Your task to perform on an android device: Open location settings Image 0: 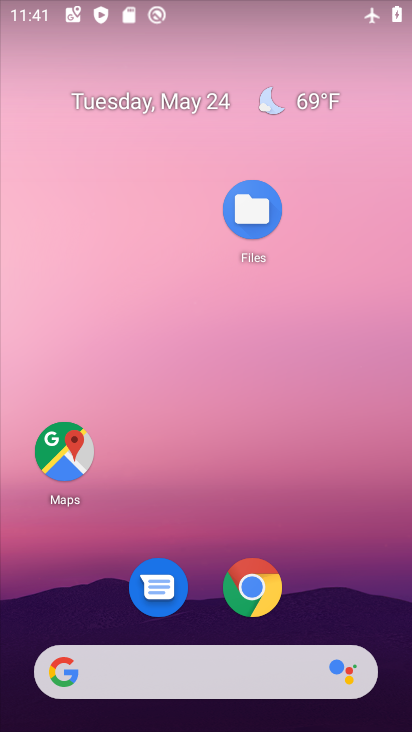
Step 0: drag from (336, 584) to (71, 293)
Your task to perform on an android device: Open location settings Image 1: 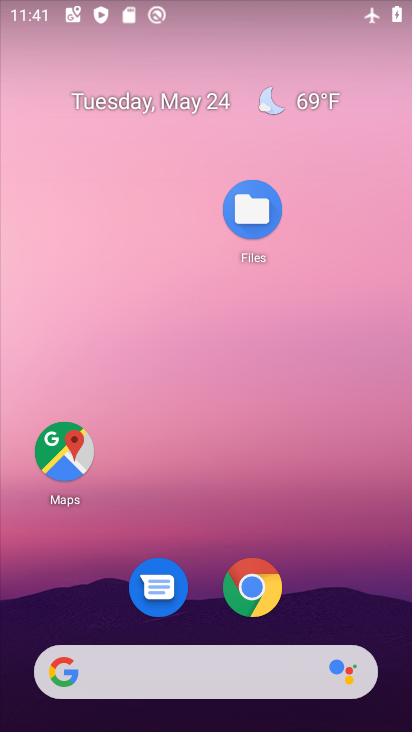
Step 1: drag from (340, 598) to (83, 80)
Your task to perform on an android device: Open location settings Image 2: 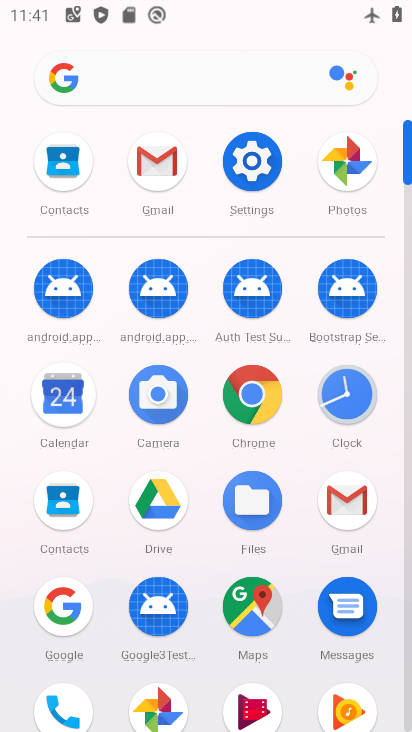
Step 2: click (258, 168)
Your task to perform on an android device: Open location settings Image 3: 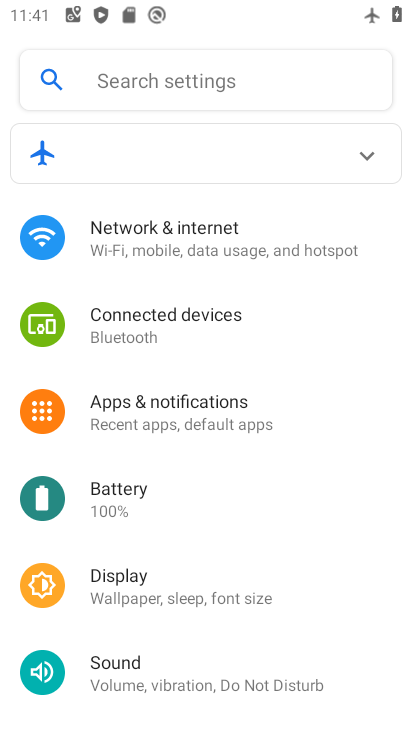
Step 3: drag from (345, 689) to (351, 371)
Your task to perform on an android device: Open location settings Image 4: 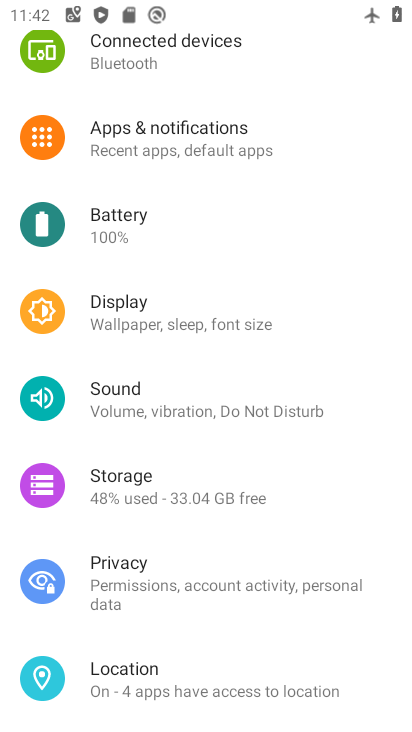
Step 4: click (182, 694)
Your task to perform on an android device: Open location settings Image 5: 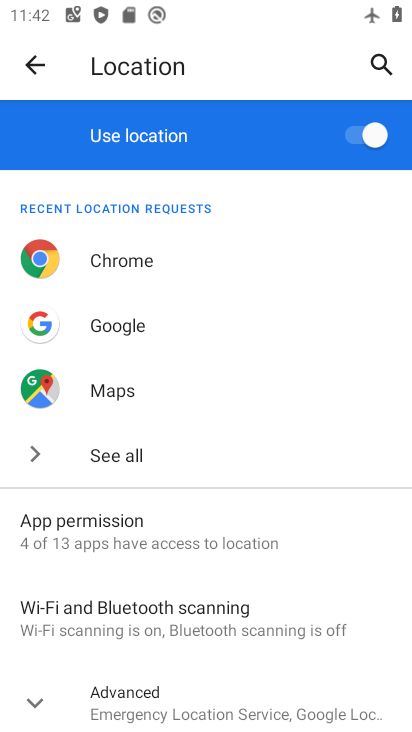
Step 5: task complete